Your task to perform on an android device: Go to CNN.com Image 0: 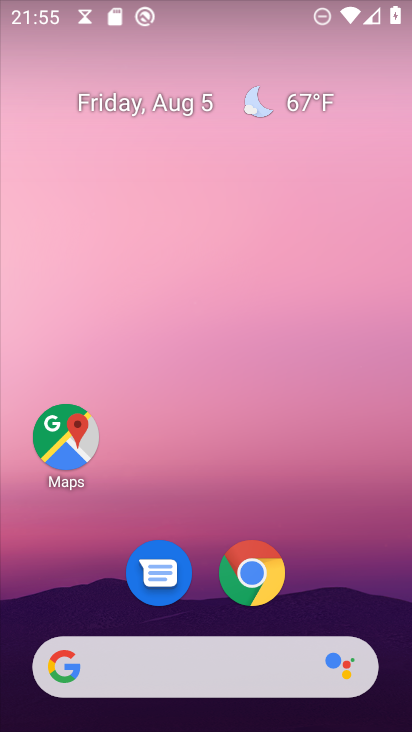
Step 0: click (250, 574)
Your task to perform on an android device: Go to CNN.com Image 1: 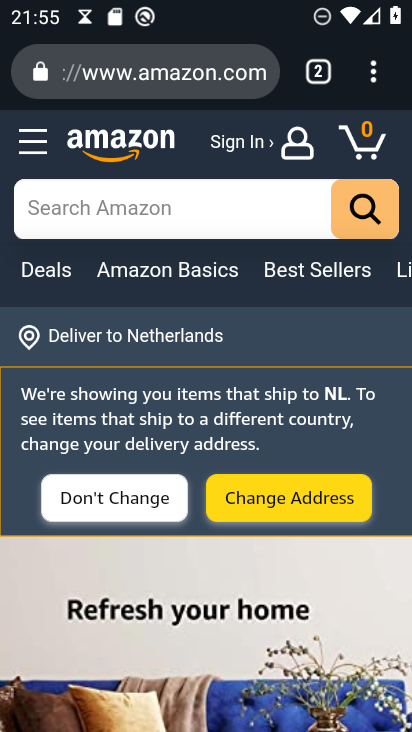
Step 1: click (254, 76)
Your task to perform on an android device: Go to CNN.com Image 2: 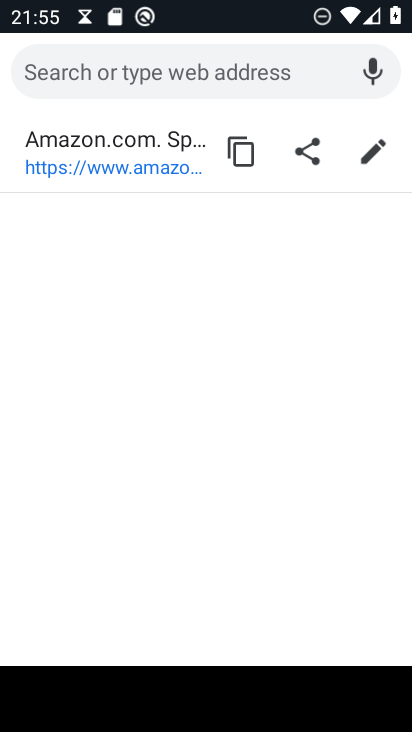
Step 2: type "CNN.com"
Your task to perform on an android device: Go to CNN.com Image 3: 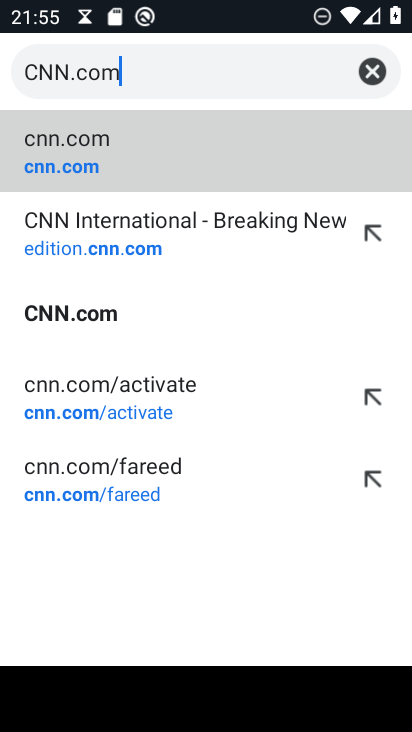
Step 3: click (107, 317)
Your task to perform on an android device: Go to CNN.com Image 4: 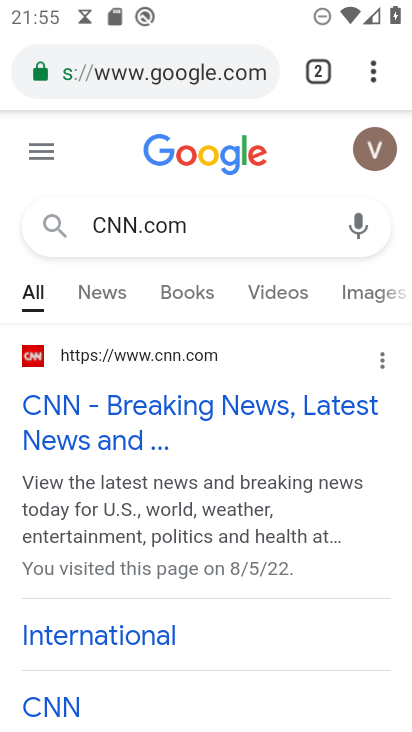
Step 4: click (193, 410)
Your task to perform on an android device: Go to CNN.com Image 5: 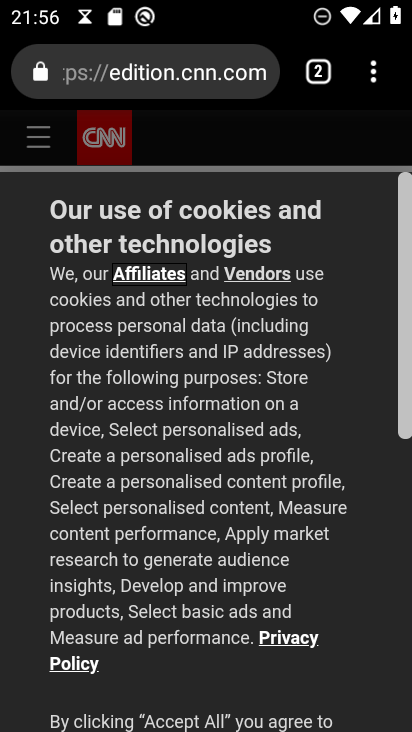
Step 5: drag from (162, 689) to (286, 383)
Your task to perform on an android device: Go to CNN.com Image 6: 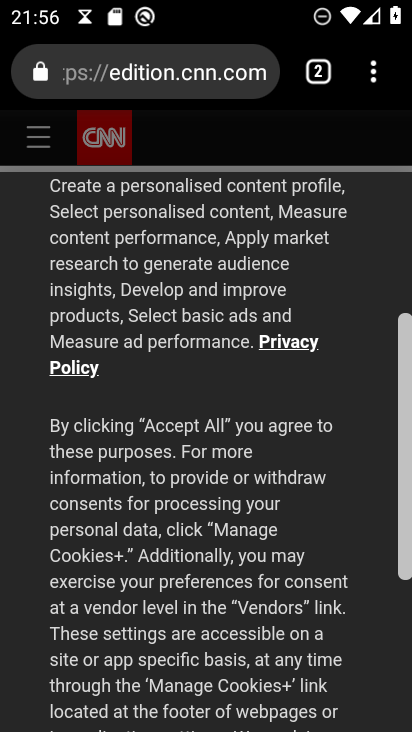
Step 6: drag from (181, 671) to (278, 427)
Your task to perform on an android device: Go to CNN.com Image 7: 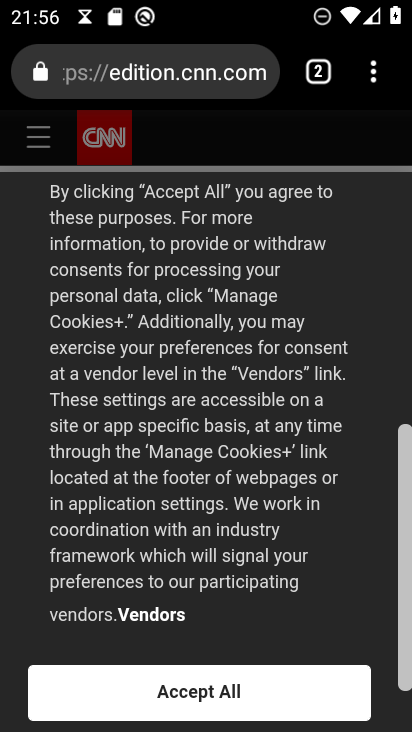
Step 7: drag from (267, 610) to (325, 407)
Your task to perform on an android device: Go to CNN.com Image 8: 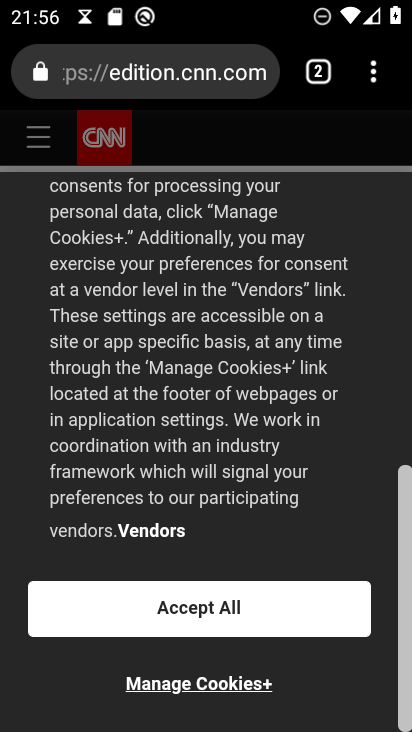
Step 8: click (215, 606)
Your task to perform on an android device: Go to CNN.com Image 9: 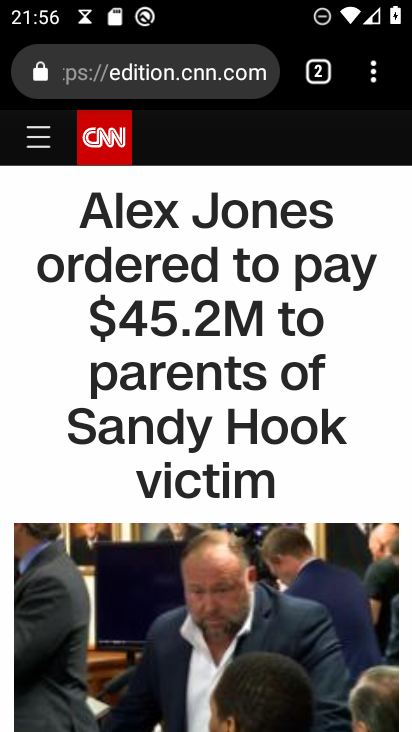
Step 9: task complete